Your task to perform on an android device: Open settings on Google Maps Image 0: 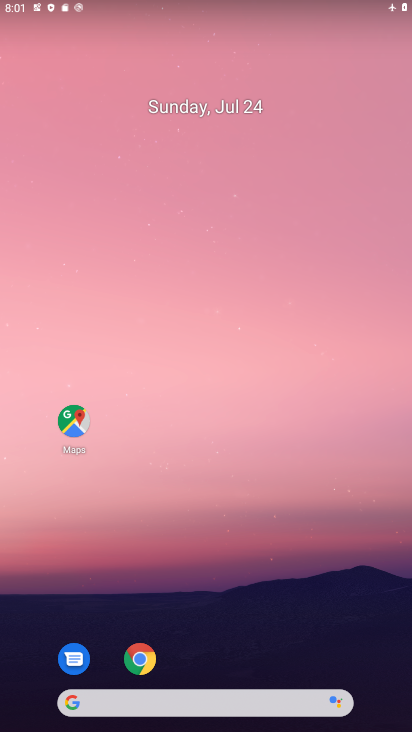
Step 0: drag from (215, 701) to (209, 166)
Your task to perform on an android device: Open settings on Google Maps Image 1: 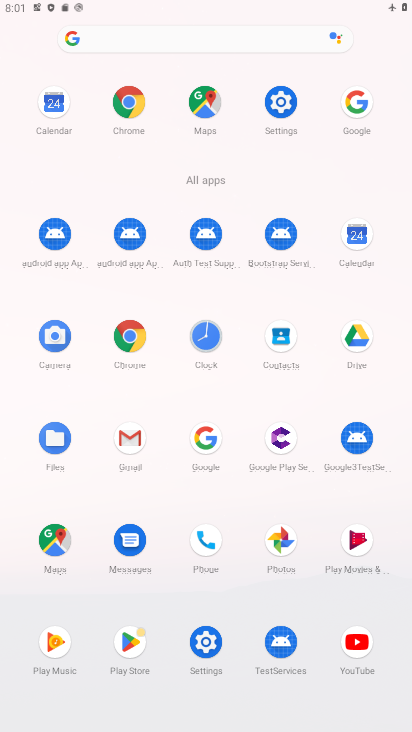
Step 1: click (52, 538)
Your task to perform on an android device: Open settings on Google Maps Image 2: 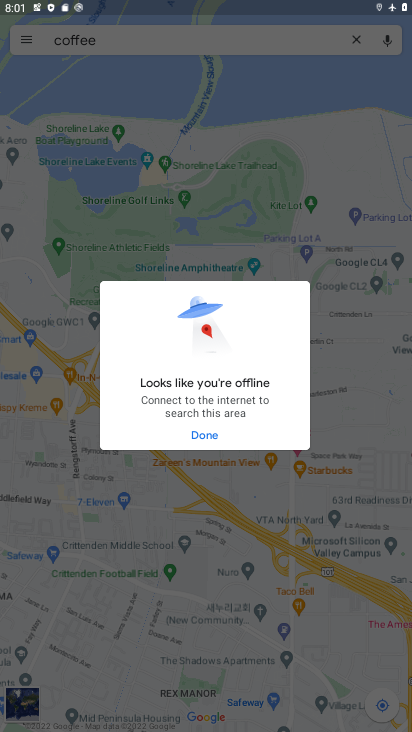
Step 2: click (208, 435)
Your task to perform on an android device: Open settings on Google Maps Image 3: 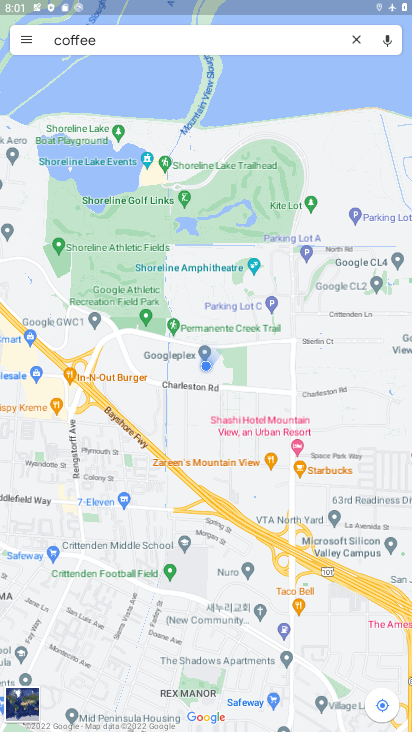
Step 3: click (25, 34)
Your task to perform on an android device: Open settings on Google Maps Image 4: 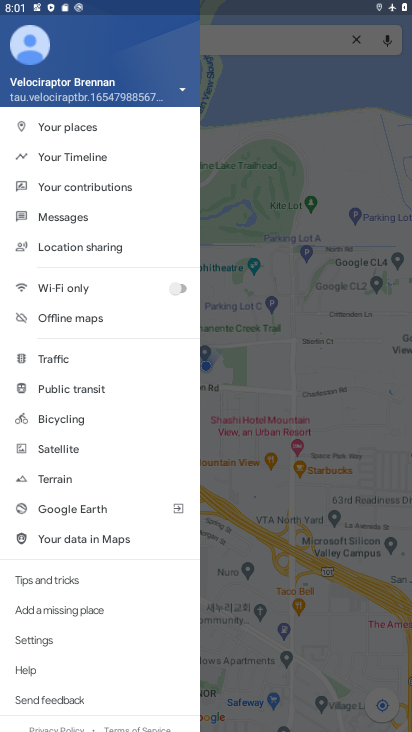
Step 4: click (47, 637)
Your task to perform on an android device: Open settings on Google Maps Image 5: 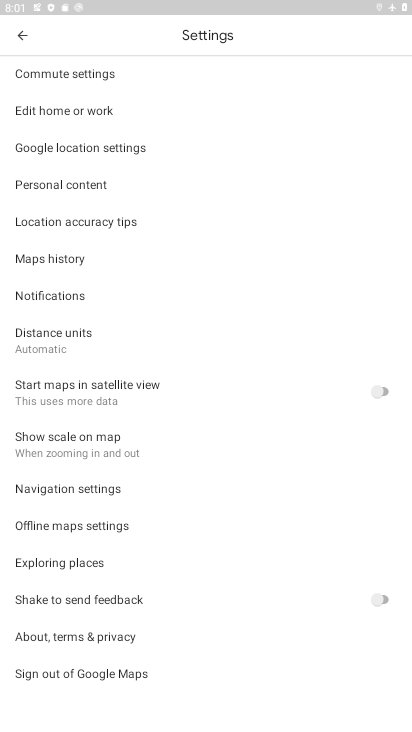
Step 5: task complete